Your task to perform on an android device: Open Google Chrome Image 0: 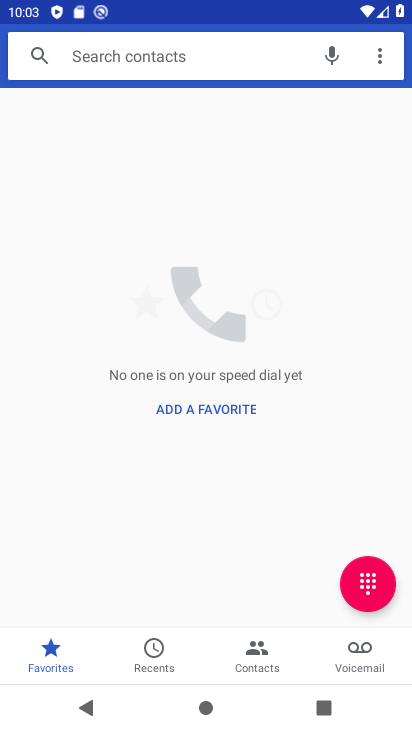
Step 0: press home button
Your task to perform on an android device: Open Google Chrome Image 1: 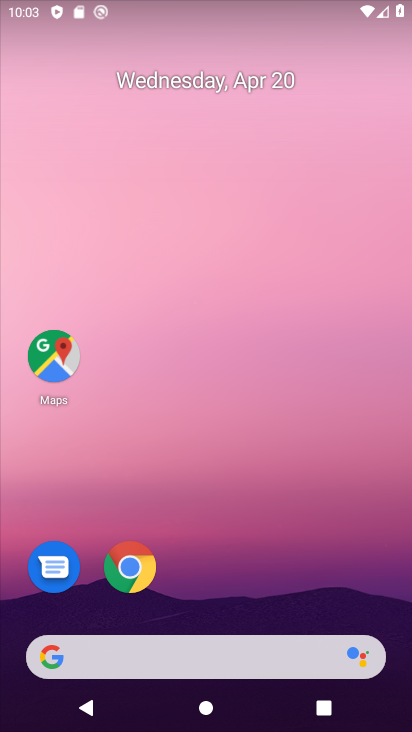
Step 1: drag from (252, 587) to (271, 46)
Your task to perform on an android device: Open Google Chrome Image 2: 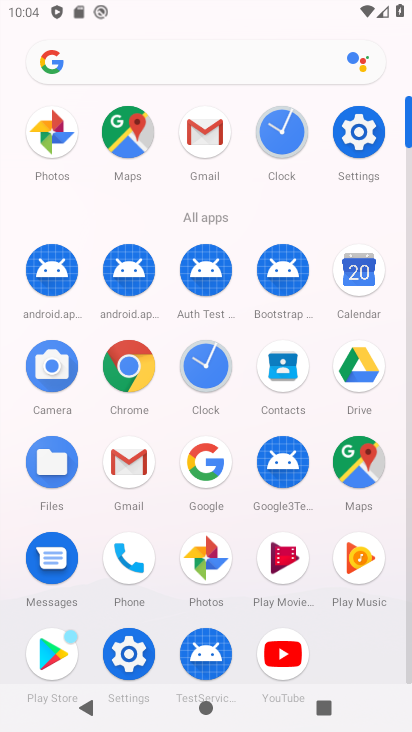
Step 2: click (129, 370)
Your task to perform on an android device: Open Google Chrome Image 3: 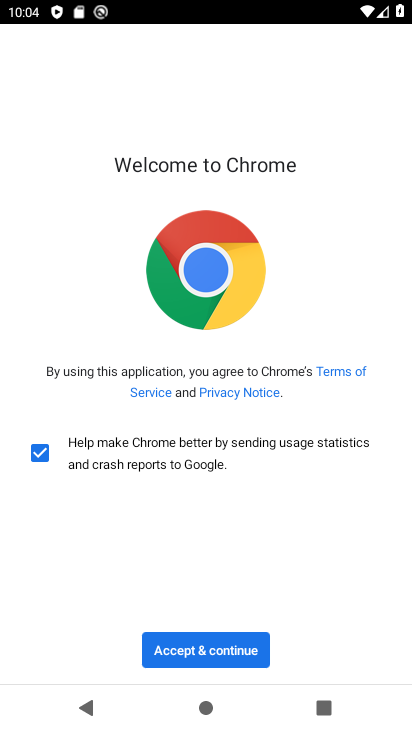
Step 3: click (214, 655)
Your task to perform on an android device: Open Google Chrome Image 4: 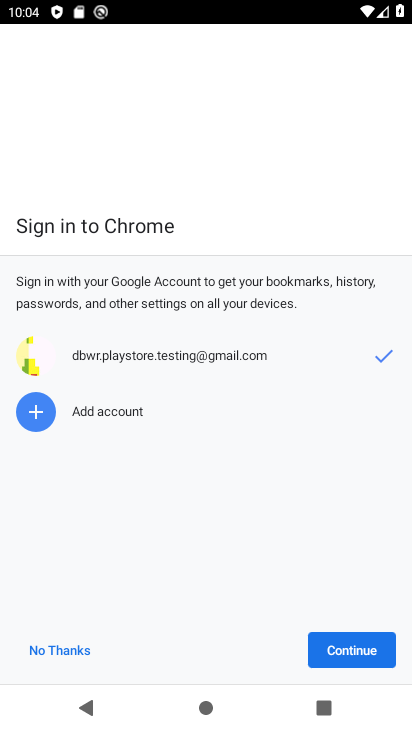
Step 4: click (333, 645)
Your task to perform on an android device: Open Google Chrome Image 5: 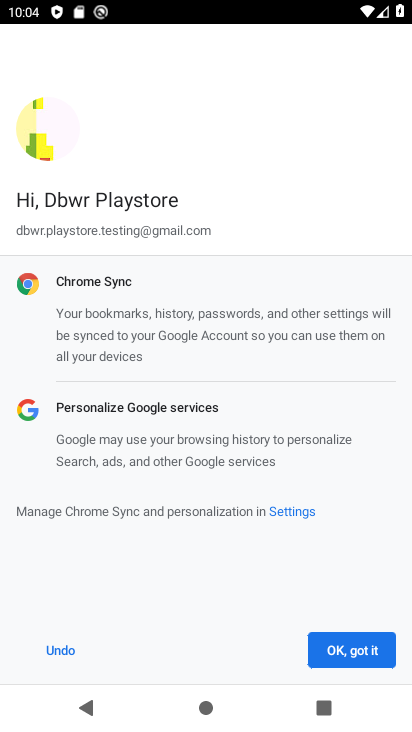
Step 5: click (333, 645)
Your task to perform on an android device: Open Google Chrome Image 6: 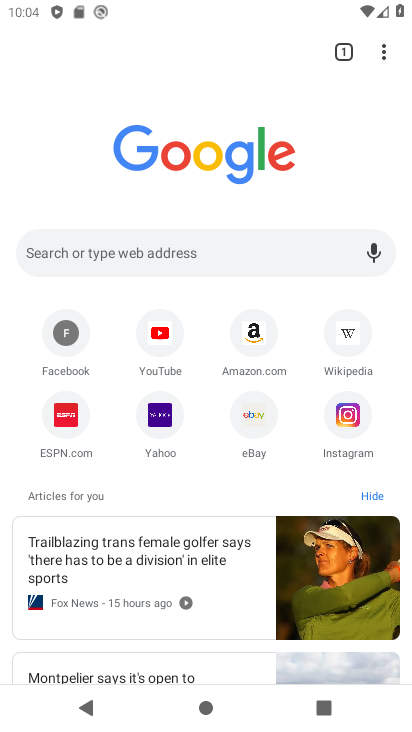
Step 6: task complete